Your task to perform on an android device: turn on bluetooth scan Image 0: 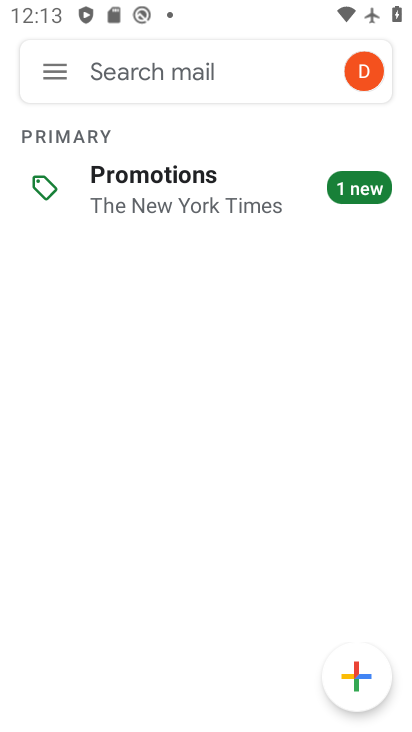
Step 0: press home button
Your task to perform on an android device: turn on bluetooth scan Image 1: 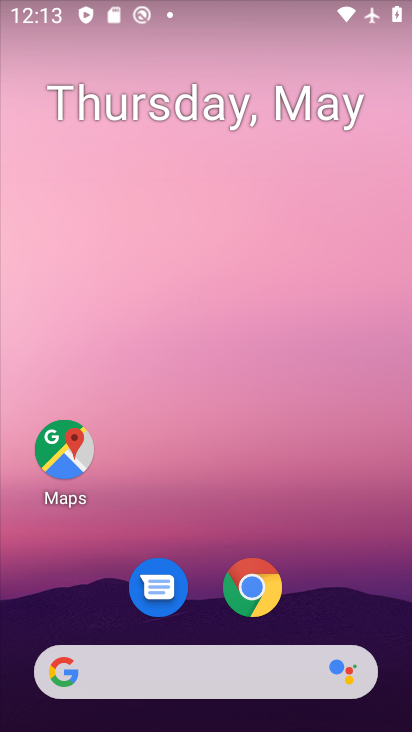
Step 1: click (267, 349)
Your task to perform on an android device: turn on bluetooth scan Image 2: 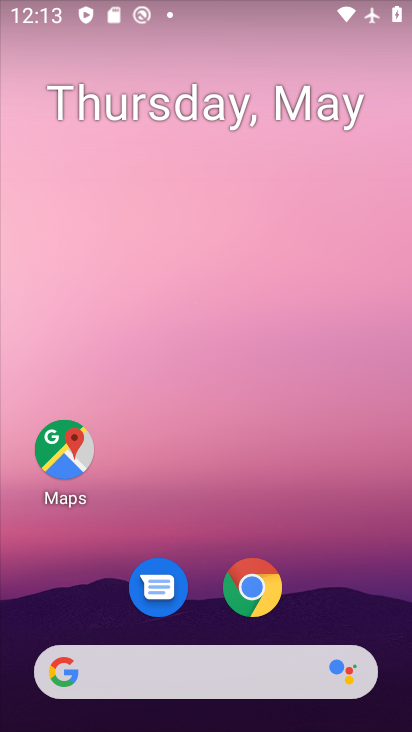
Step 2: drag from (255, 534) to (306, 5)
Your task to perform on an android device: turn on bluetooth scan Image 3: 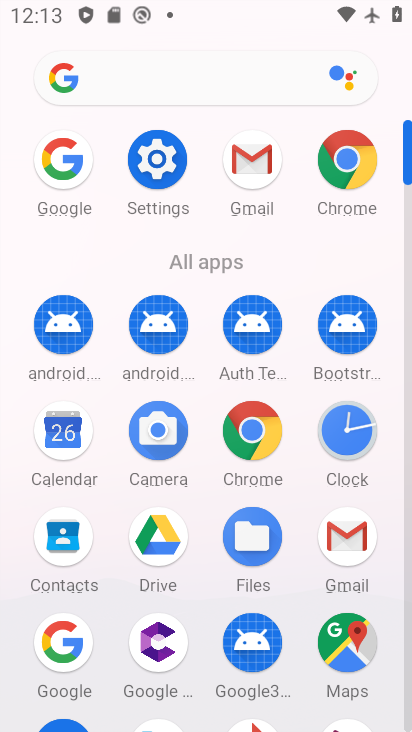
Step 3: click (161, 191)
Your task to perform on an android device: turn on bluetooth scan Image 4: 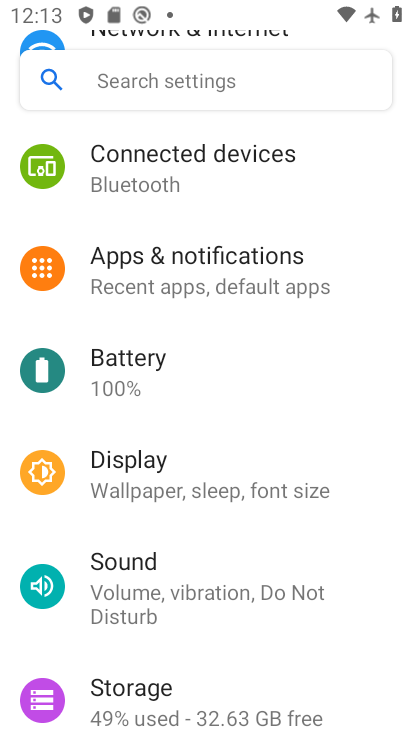
Step 4: drag from (245, 687) to (407, 466)
Your task to perform on an android device: turn on bluetooth scan Image 5: 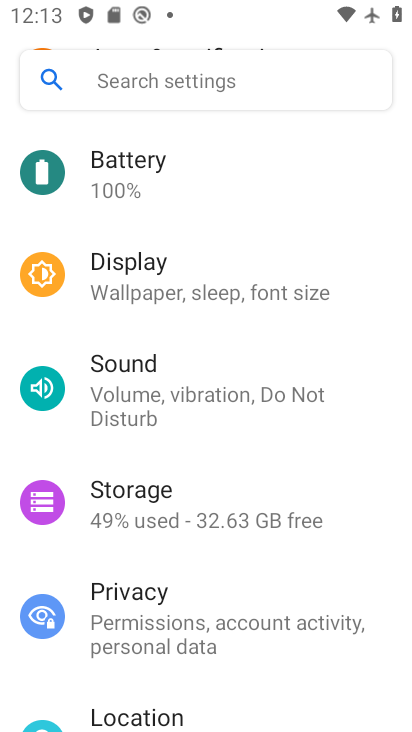
Step 5: click (288, 424)
Your task to perform on an android device: turn on bluetooth scan Image 6: 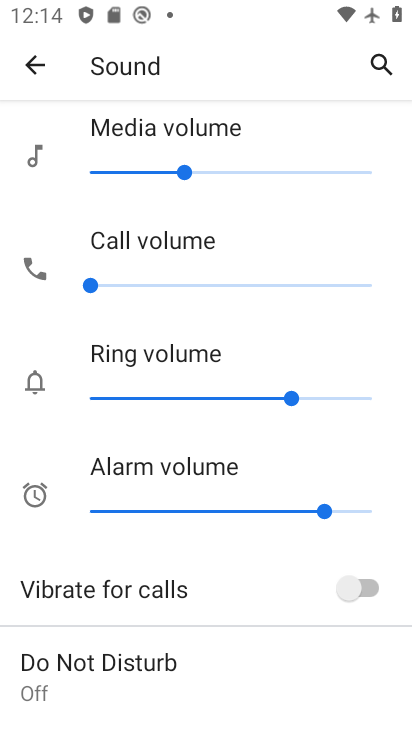
Step 6: press back button
Your task to perform on an android device: turn on bluetooth scan Image 7: 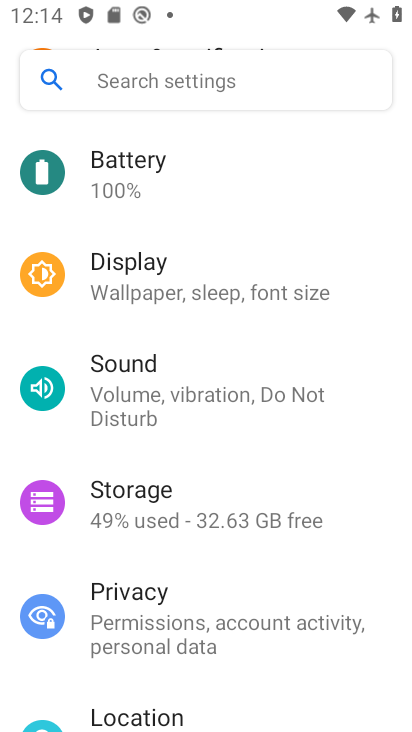
Step 7: click (297, 712)
Your task to perform on an android device: turn on bluetooth scan Image 8: 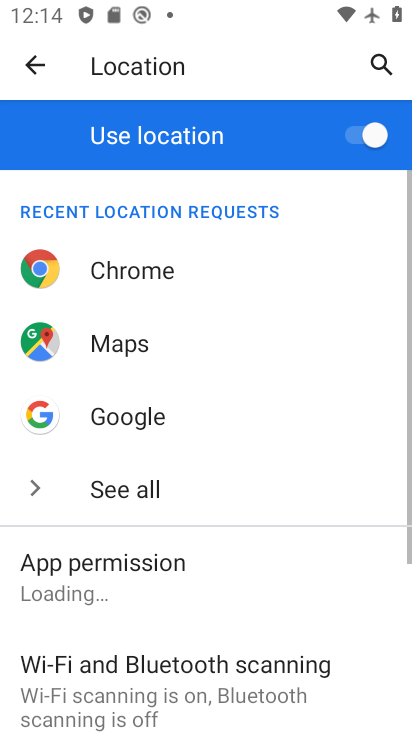
Step 8: drag from (300, 713) to (323, 166)
Your task to perform on an android device: turn on bluetooth scan Image 9: 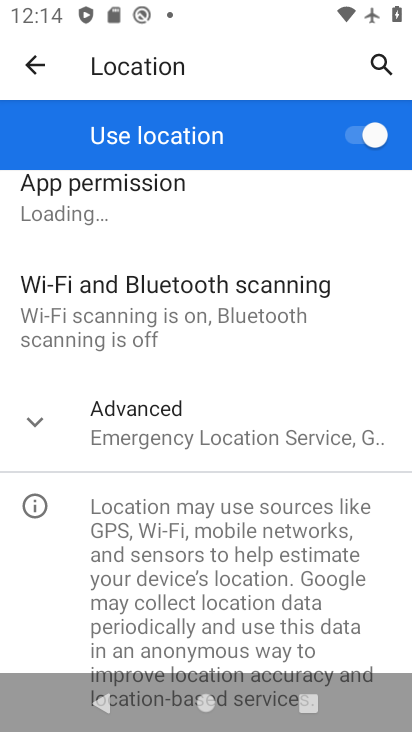
Step 9: click (260, 435)
Your task to perform on an android device: turn on bluetooth scan Image 10: 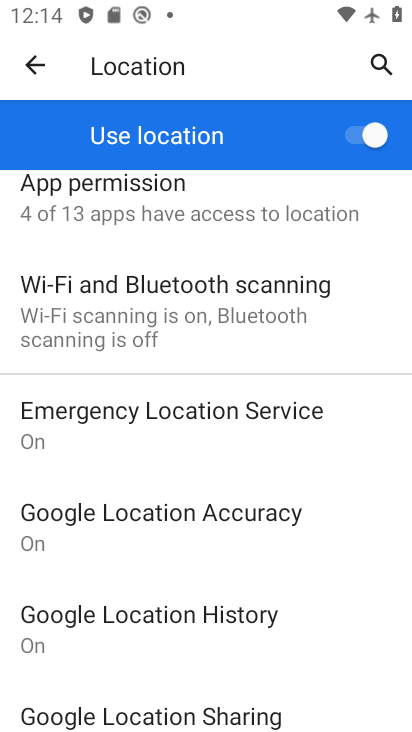
Step 10: drag from (288, 712) to (317, 562)
Your task to perform on an android device: turn on bluetooth scan Image 11: 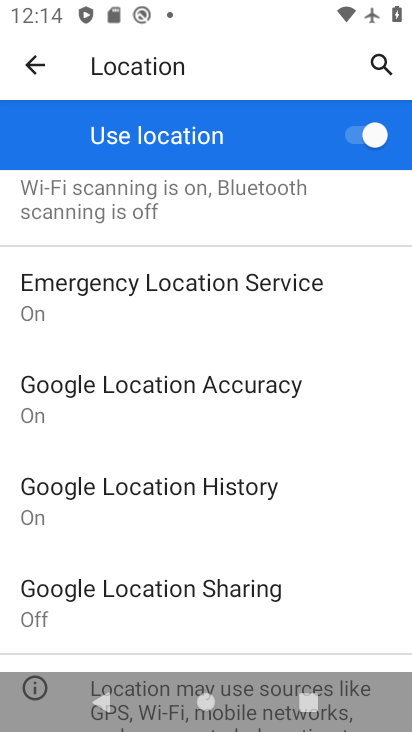
Step 11: click (251, 207)
Your task to perform on an android device: turn on bluetooth scan Image 12: 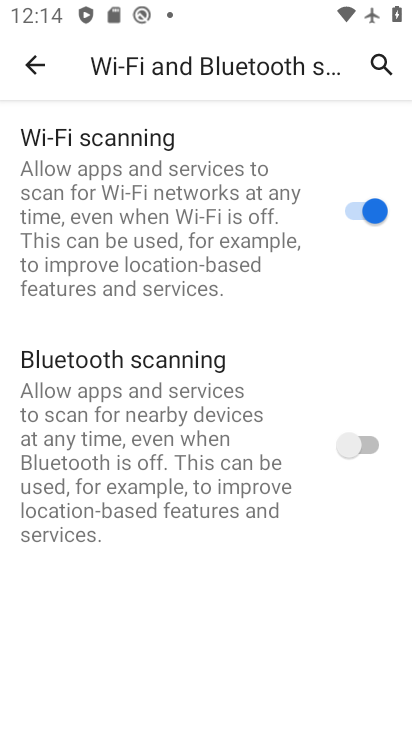
Step 12: click (368, 446)
Your task to perform on an android device: turn on bluetooth scan Image 13: 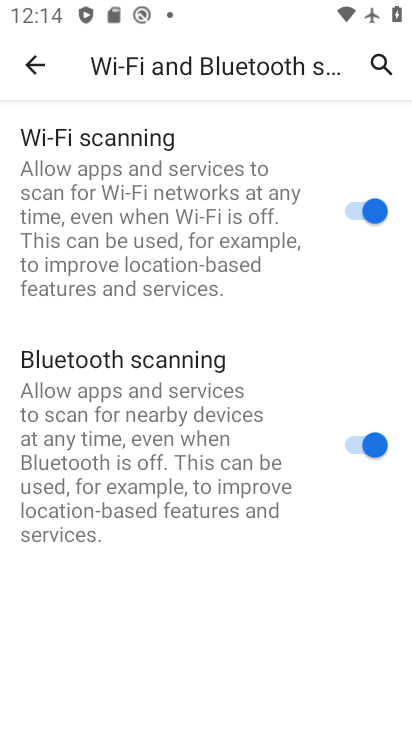
Step 13: task complete